Your task to perform on an android device: turn on improve location accuracy Image 0: 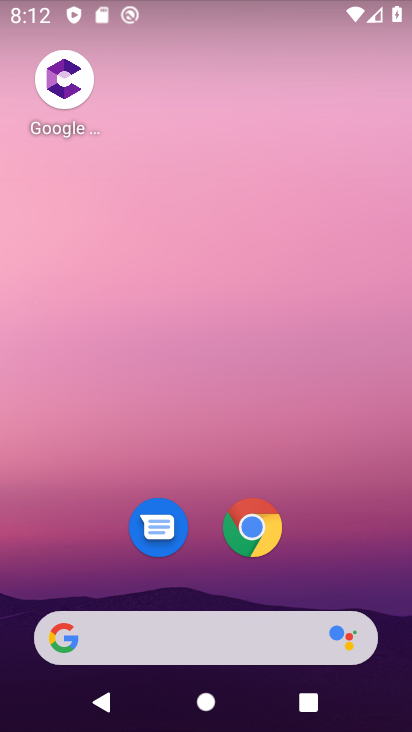
Step 0: drag from (82, 619) to (280, 117)
Your task to perform on an android device: turn on improve location accuracy Image 1: 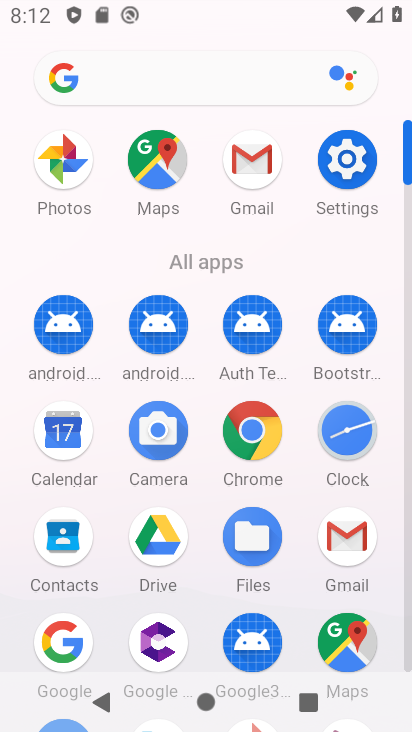
Step 1: click (342, 167)
Your task to perform on an android device: turn on improve location accuracy Image 2: 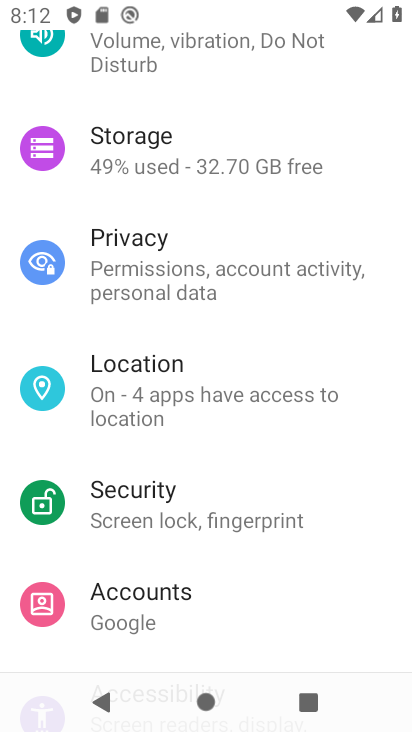
Step 2: drag from (242, 275) to (243, 581)
Your task to perform on an android device: turn on improve location accuracy Image 3: 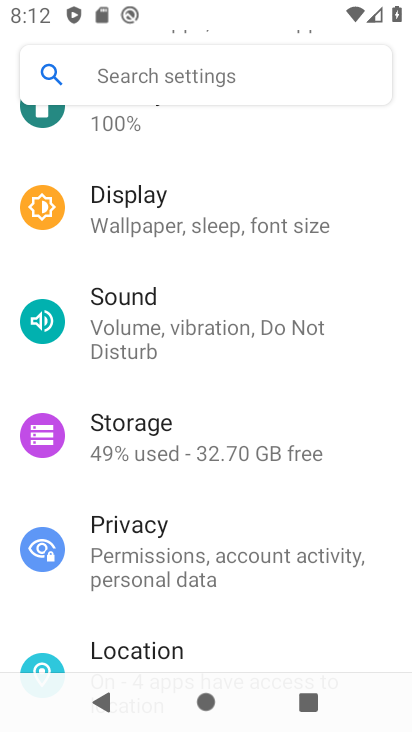
Step 3: drag from (259, 304) to (353, 206)
Your task to perform on an android device: turn on improve location accuracy Image 4: 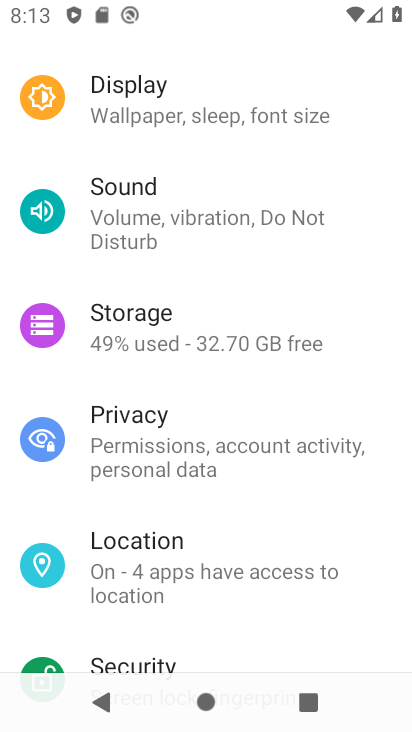
Step 4: click (217, 558)
Your task to perform on an android device: turn on improve location accuracy Image 5: 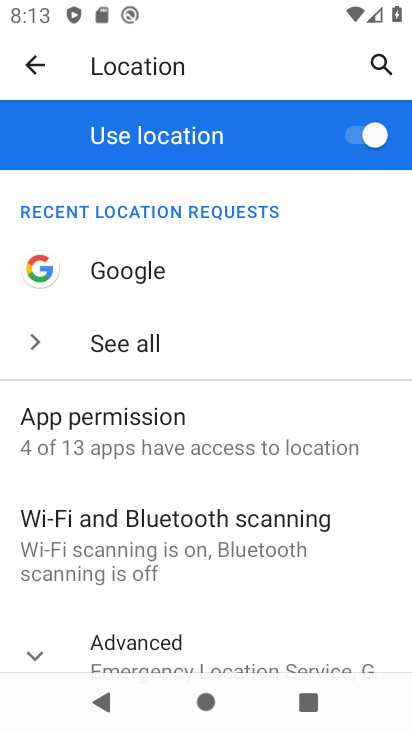
Step 5: drag from (285, 583) to (352, 185)
Your task to perform on an android device: turn on improve location accuracy Image 6: 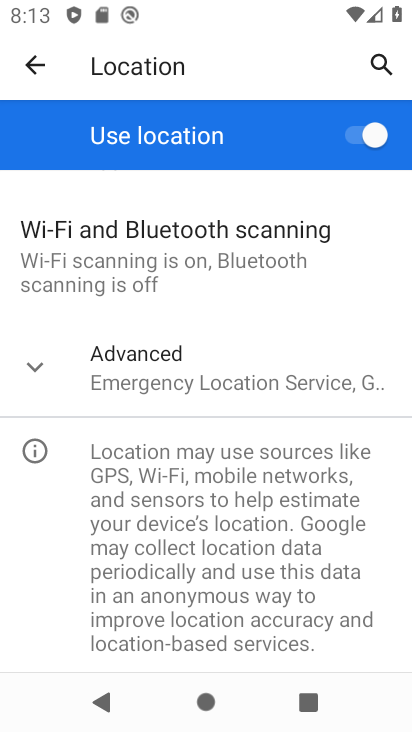
Step 6: click (214, 362)
Your task to perform on an android device: turn on improve location accuracy Image 7: 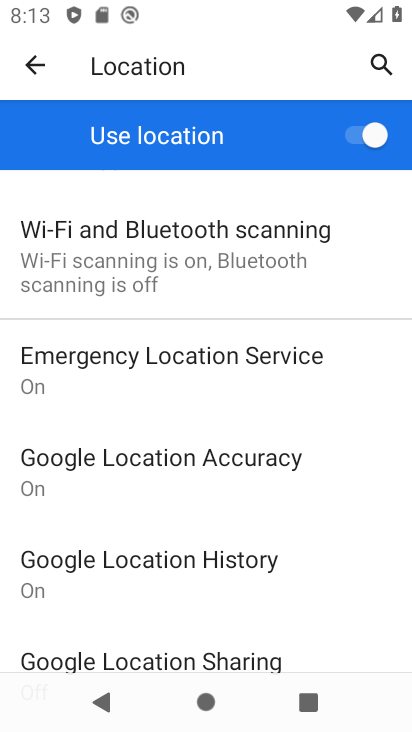
Step 7: drag from (320, 424) to (333, 373)
Your task to perform on an android device: turn on improve location accuracy Image 8: 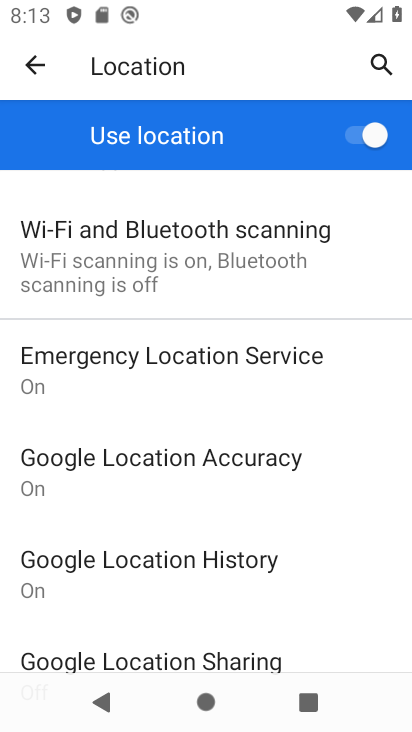
Step 8: click (262, 472)
Your task to perform on an android device: turn on improve location accuracy Image 9: 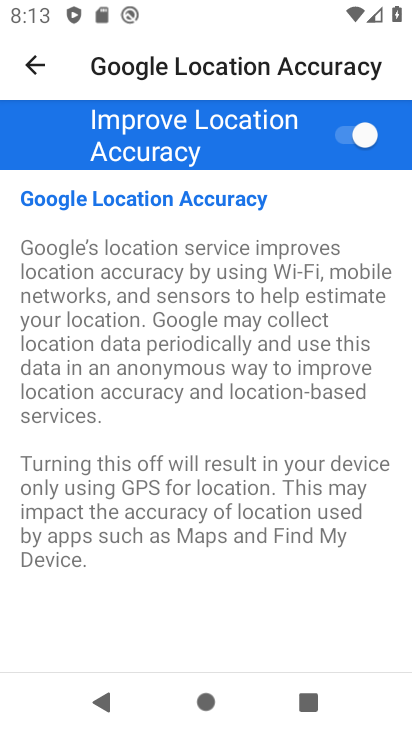
Step 9: task complete